Your task to perform on an android device: see tabs open on other devices in the chrome app Image 0: 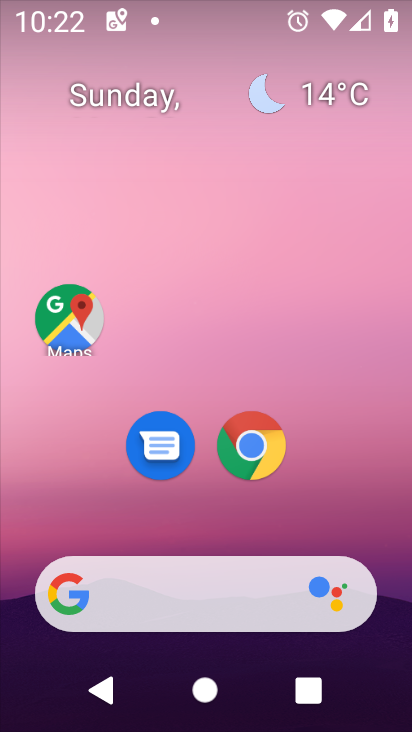
Step 0: click (248, 11)
Your task to perform on an android device: see tabs open on other devices in the chrome app Image 1: 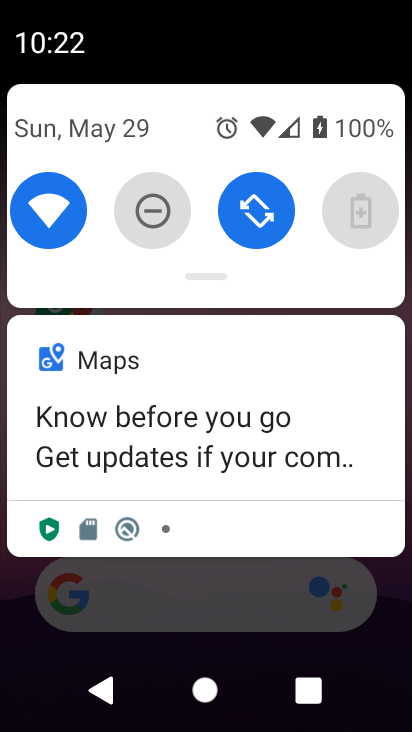
Step 1: drag from (210, 512) to (290, 2)
Your task to perform on an android device: see tabs open on other devices in the chrome app Image 2: 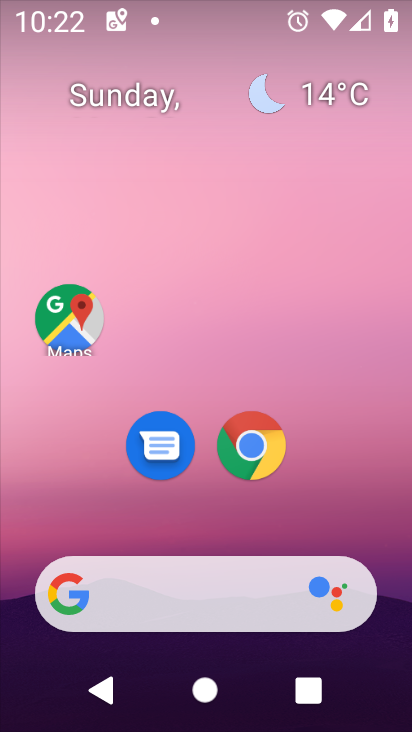
Step 2: drag from (190, 516) to (230, 23)
Your task to perform on an android device: see tabs open on other devices in the chrome app Image 3: 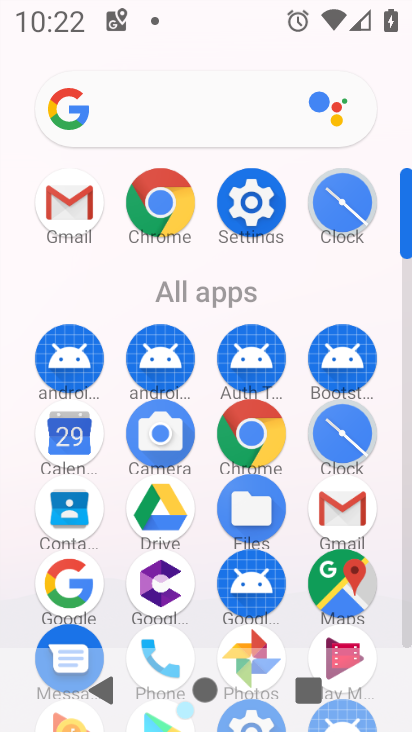
Step 3: click (245, 422)
Your task to perform on an android device: see tabs open on other devices in the chrome app Image 4: 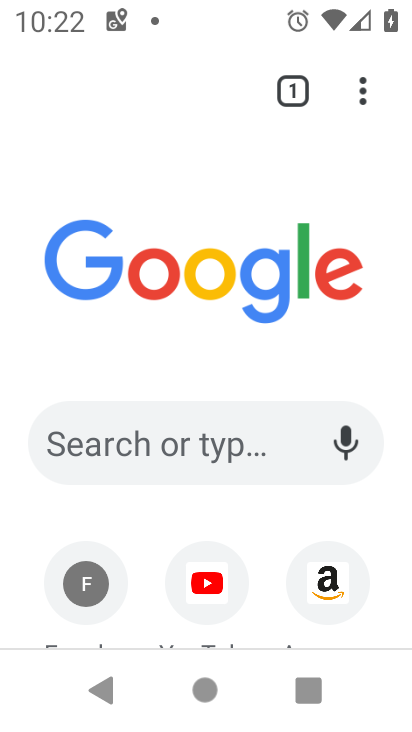
Step 4: drag from (360, 94) to (175, 140)
Your task to perform on an android device: see tabs open on other devices in the chrome app Image 5: 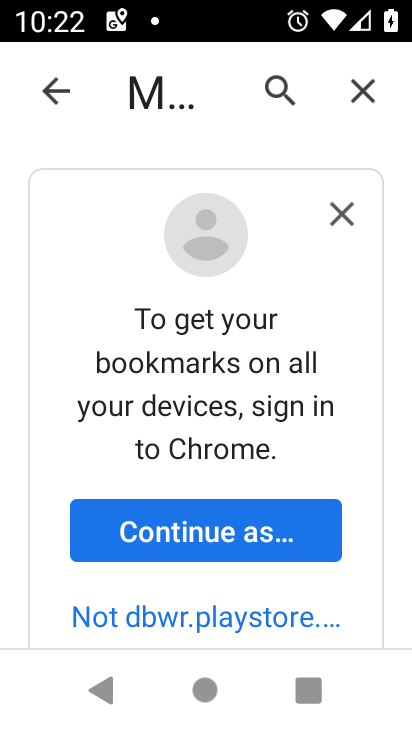
Step 5: click (357, 82)
Your task to perform on an android device: see tabs open on other devices in the chrome app Image 6: 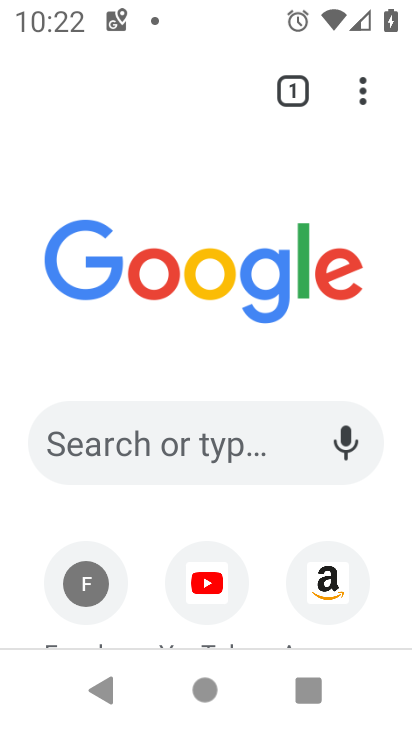
Step 6: task complete